Your task to perform on an android device: Check the news Image 0: 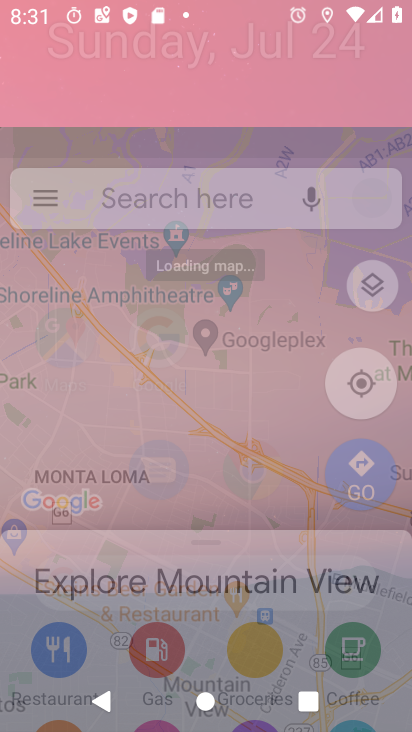
Step 0: press home button
Your task to perform on an android device: Check the news Image 1: 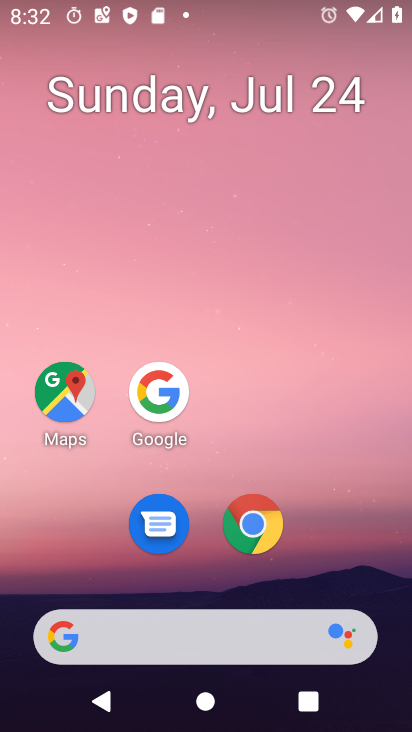
Step 1: click (159, 634)
Your task to perform on an android device: Check the news Image 2: 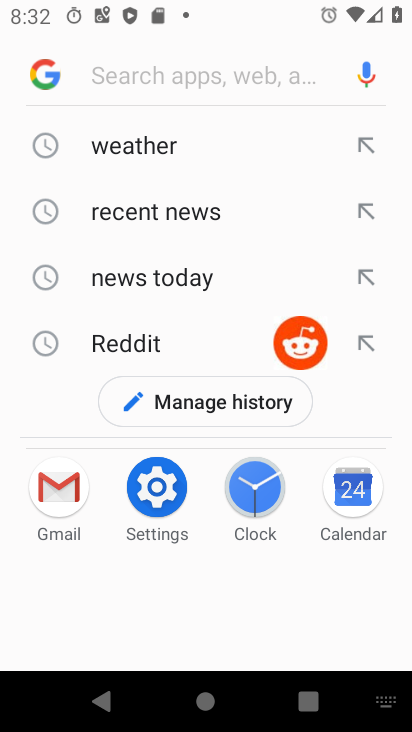
Step 2: click (173, 213)
Your task to perform on an android device: Check the news Image 3: 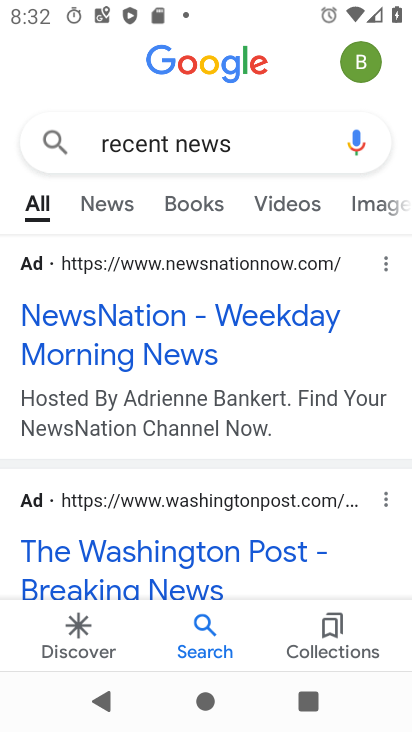
Step 3: click (95, 213)
Your task to perform on an android device: Check the news Image 4: 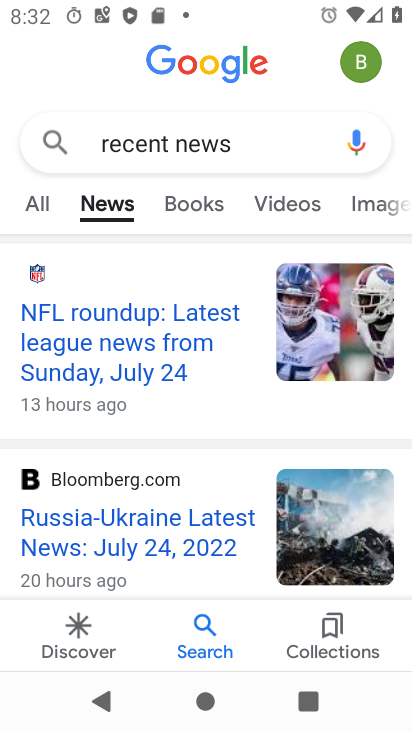
Step 4: task complete